Your task to perform on an android device: change notification settings in the gmail app Image 0: 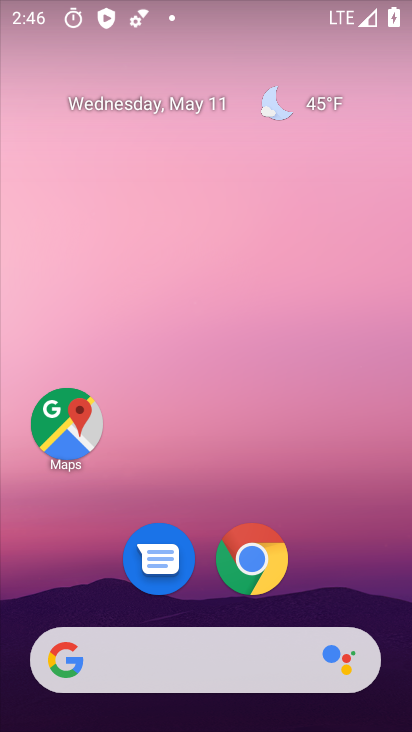
Step 0: drag from (324, 530) to (211, 76)
Your task to perform on an android device: change notification settings in the gmail app Image 1: 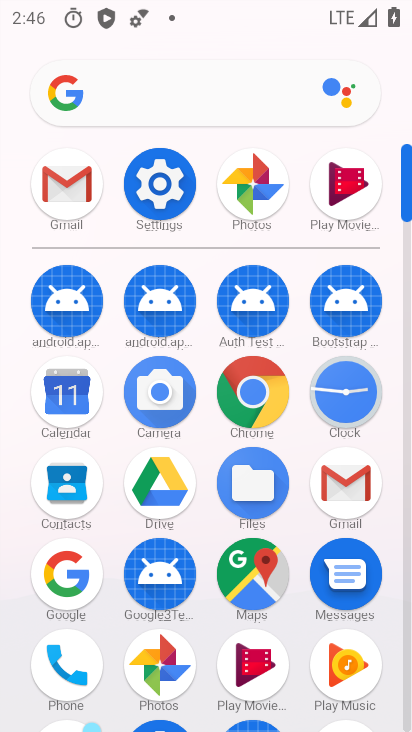
Step 1: click (354, 477)
Your task to perform on an android device: change notification settings in the gmail app Image 2: 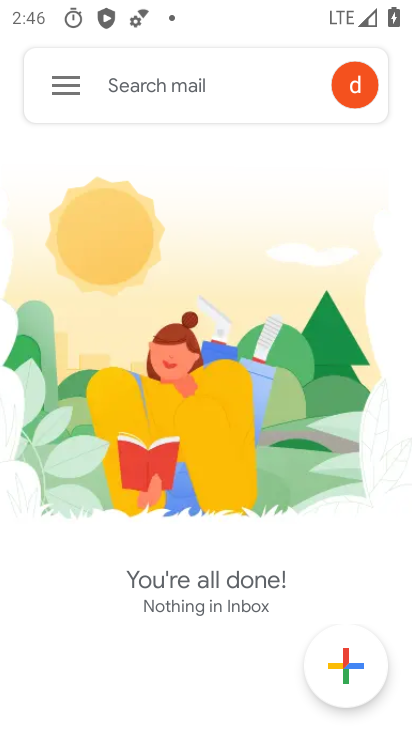
Step 2: click (66, 79)
Your task to perform on an android device: change notification settings in the gmail app Image 3: 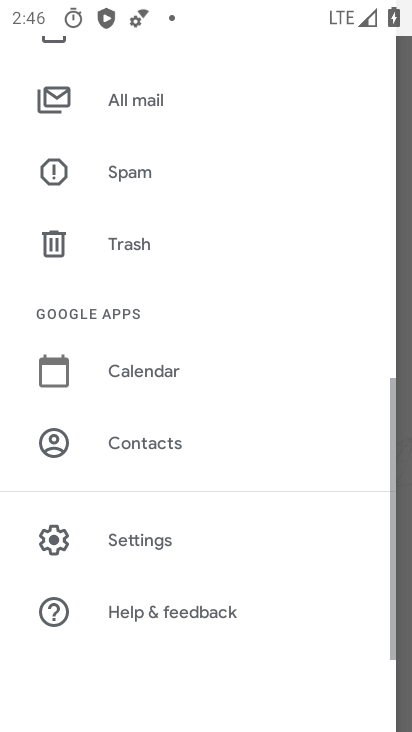
Step 3: click (169, 538)
Your task to perform on an android device: change notification settings in the gmail app Image 4: 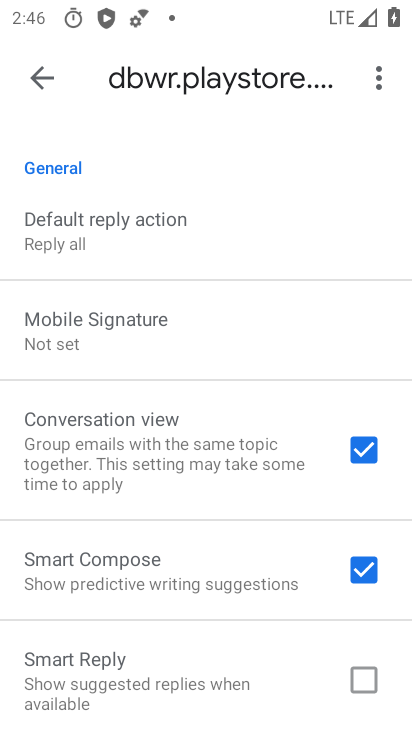
Step 4: drag from (161, 283) to (150, 640)
Your task to perform on an android device: change notification settings in the gmail app Image 5: 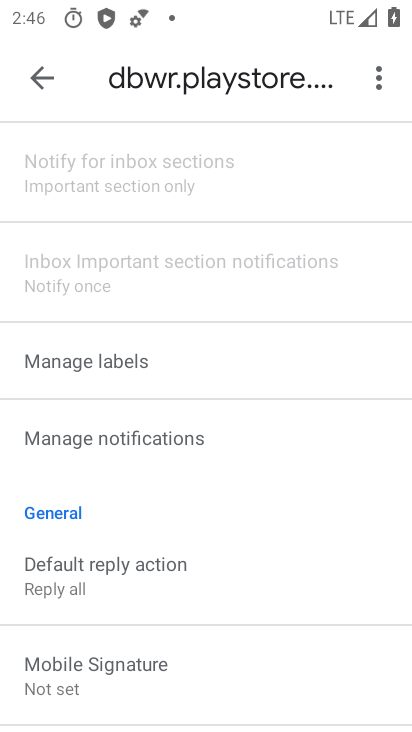
Step 5: click (111, 427)
Your task to perform on an android device: change notification settings in the gmail app Image 6: 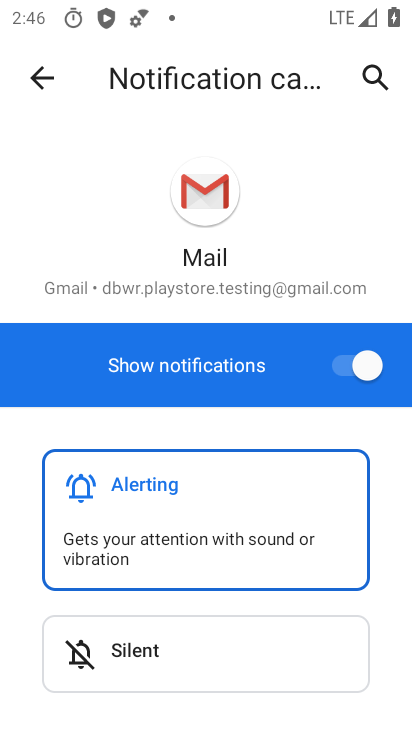
Step 6: click (358, 362)
Your task to perform on an android device: change notification settings in the gmail app Image 7: 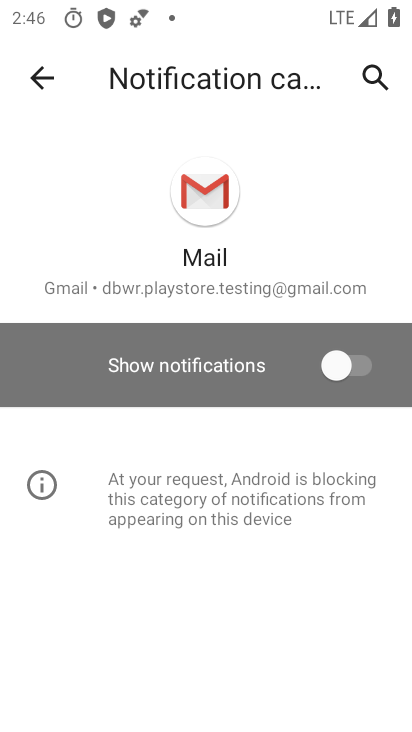
Step 7: task complete